Your task to perform on an android device: Find coffee shops on Maps Image 0: 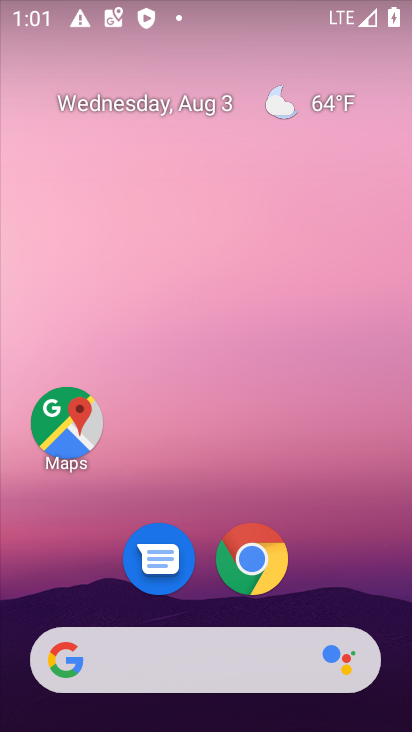
Step 0: drag from (194, 599) to (208, 33)
Your task to perform on an android device: Find coffee shops on Maps Image 1: 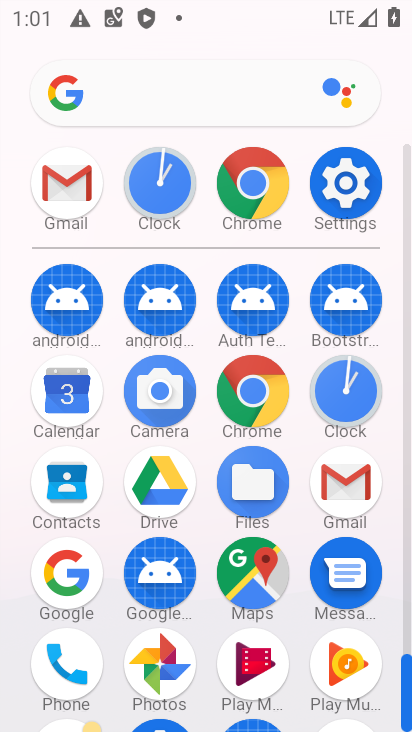
Step 1: click (264, 578)
Your task to perform on an android device: Find coffee shops on Maps Image 2: 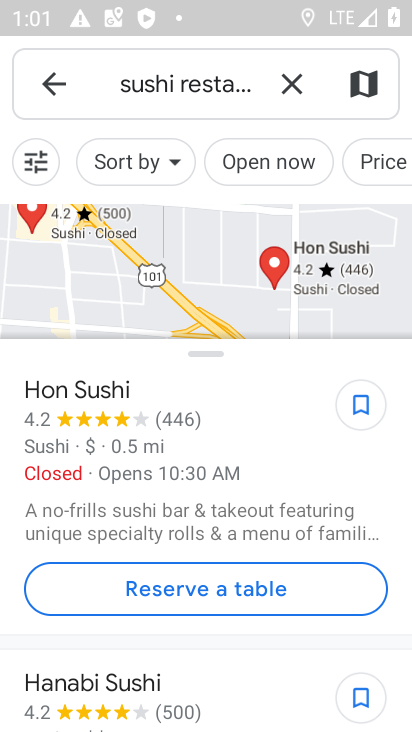
Step 2: click (290, 79)
Your task to perform on an android device: Find coffee shops on Maps Image 3: 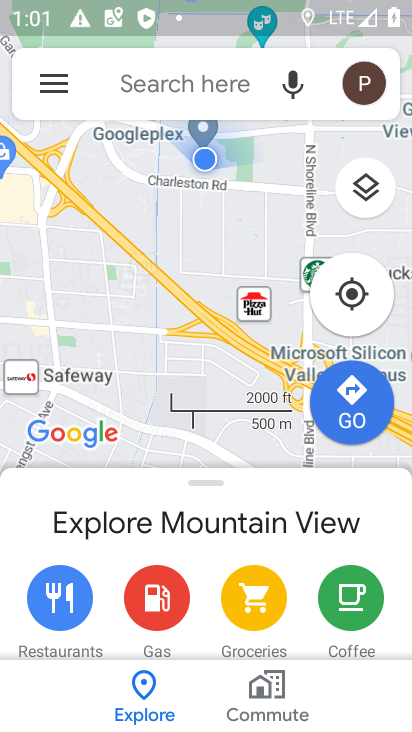
Step 3: click (181, 70)
Your task to perform on an android device: Find coffee shops on Maps Image 4: 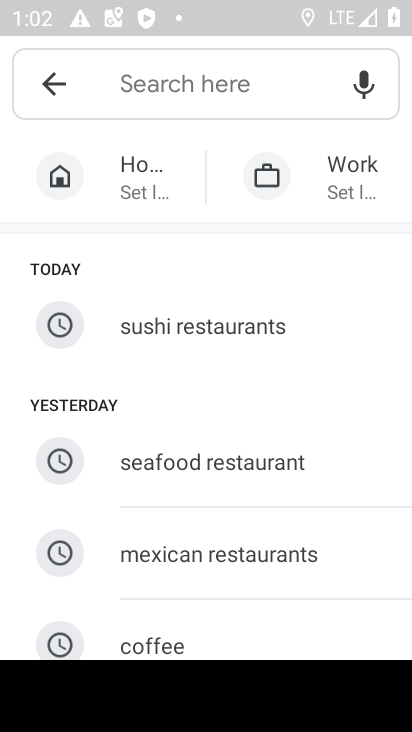
Step 4: type "coffee shops"
Your task to perform on an android device: Find coffee shops on Maps Image 5: 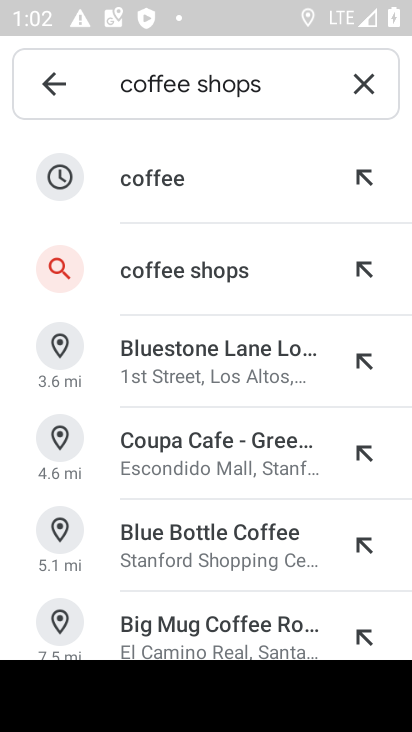
Step 5: click (155, 269)
Your task to perform on an android device: Find coffee shops on Maps Image 6: 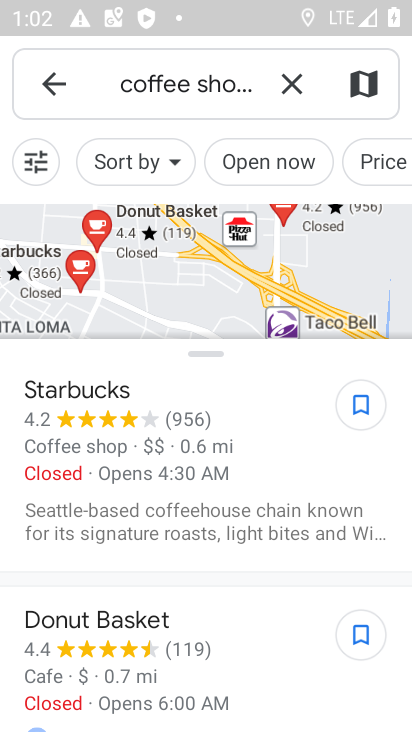
Step 6: task complete